Your task to perform on an android device: check android version Image 0: 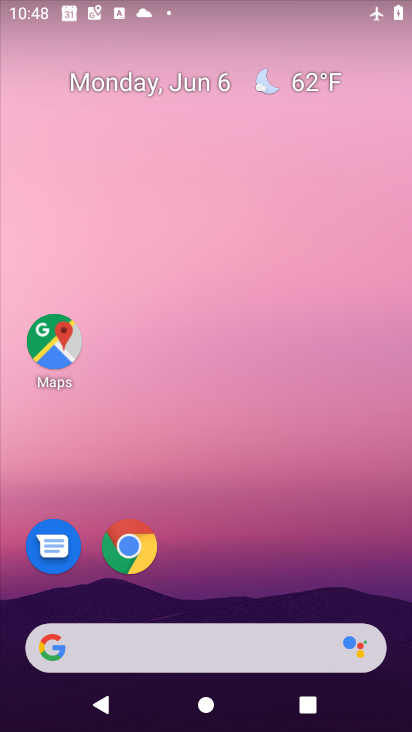
Step 0: drag from (387, 602) to (345, 120)
Your task to perform on an android device: check android version Image 1: 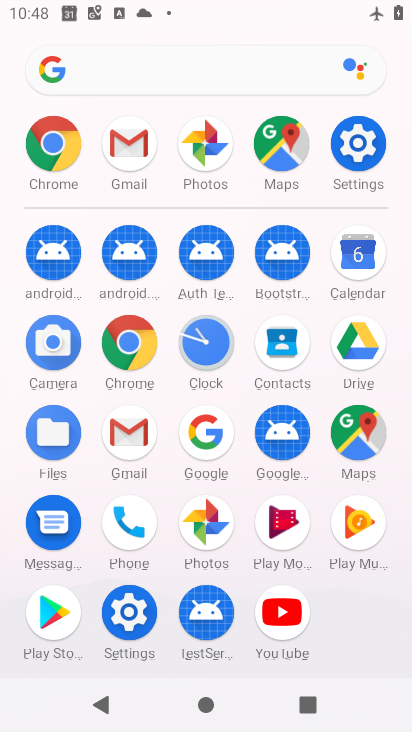
Step 1: click (127, 608)
Your task to perform on an android device: check android version Image 2: 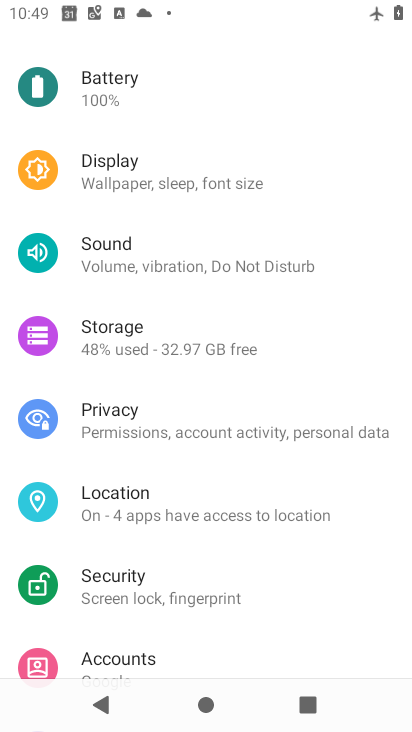
Step 2: drag from (232, 623) to (146, 255)
Your task to perform on an android device: check android version Image 3: 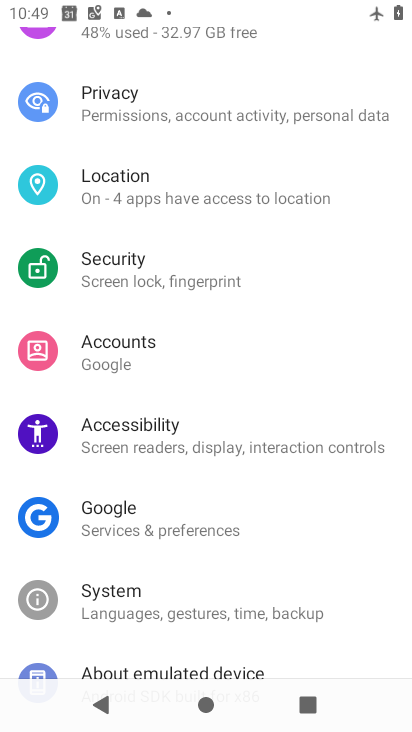
Step 3: drag from (259, 601) to (223, 390)
Your task to perform on an android device: check android version Image 4: 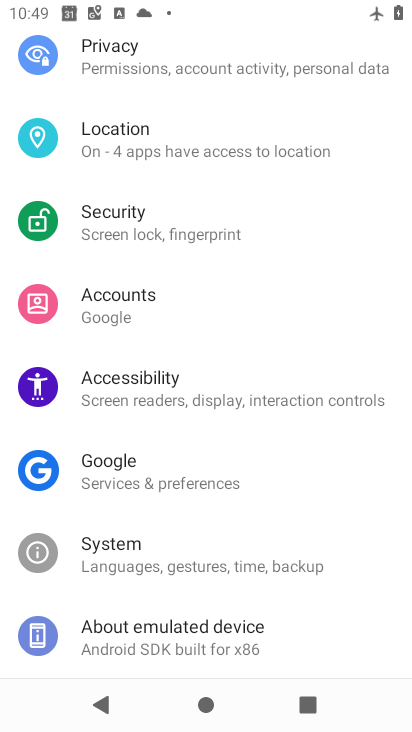
Step 4: click (143, 618)
Your task to perform on an android device: check android version Image 5: 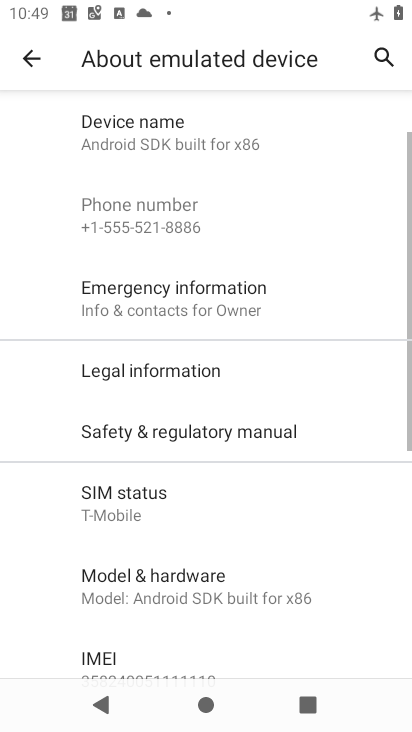
Step 5: drag from (311, 556) to (300, 232)
Your task to perform on an android device: check android version Image 6: 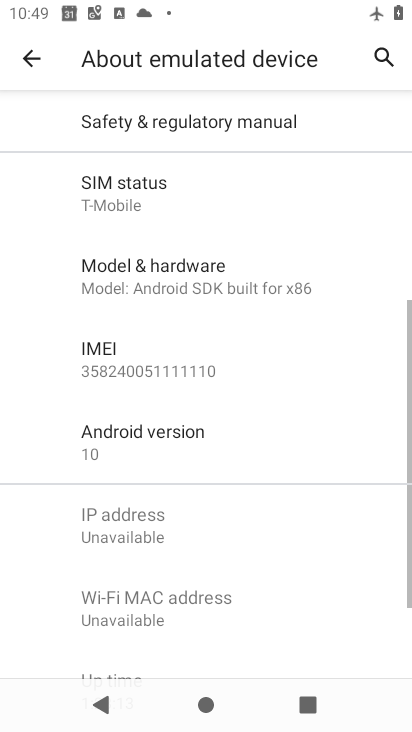
Step 6: click (129, 437)
Your task to perform on an android device: check android version Image 7: 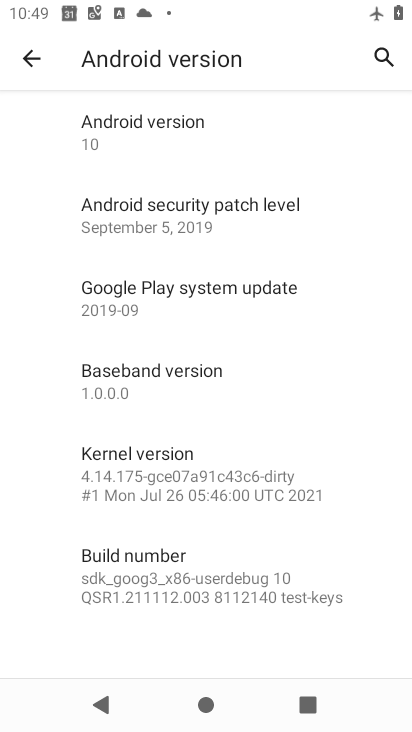
Step 7: task complete